Your task to perform on an android device: turn on wifi Image 0: 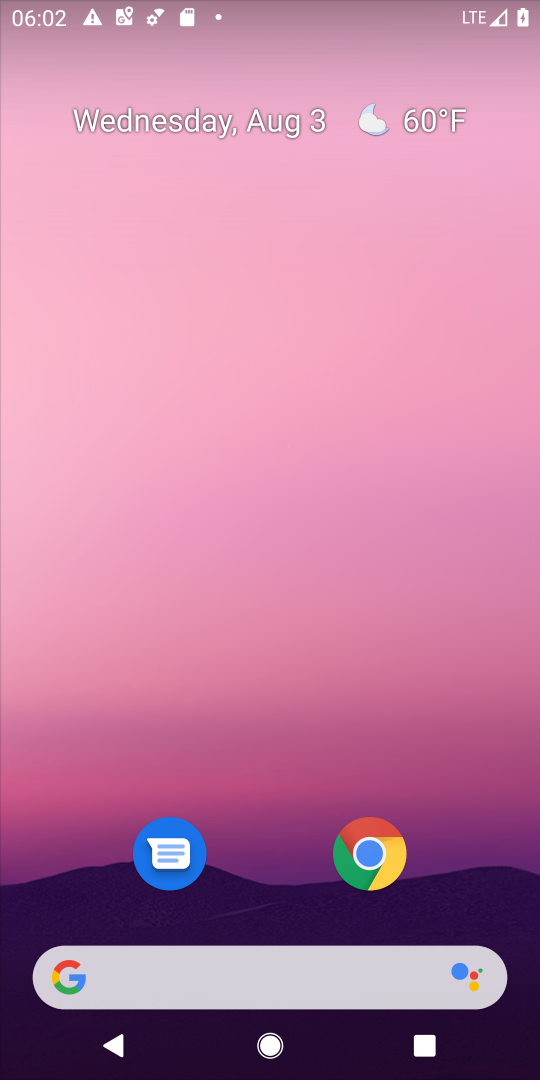
Step 0: press home button
Your task to perform on an android device: turn on wifi Image 1: 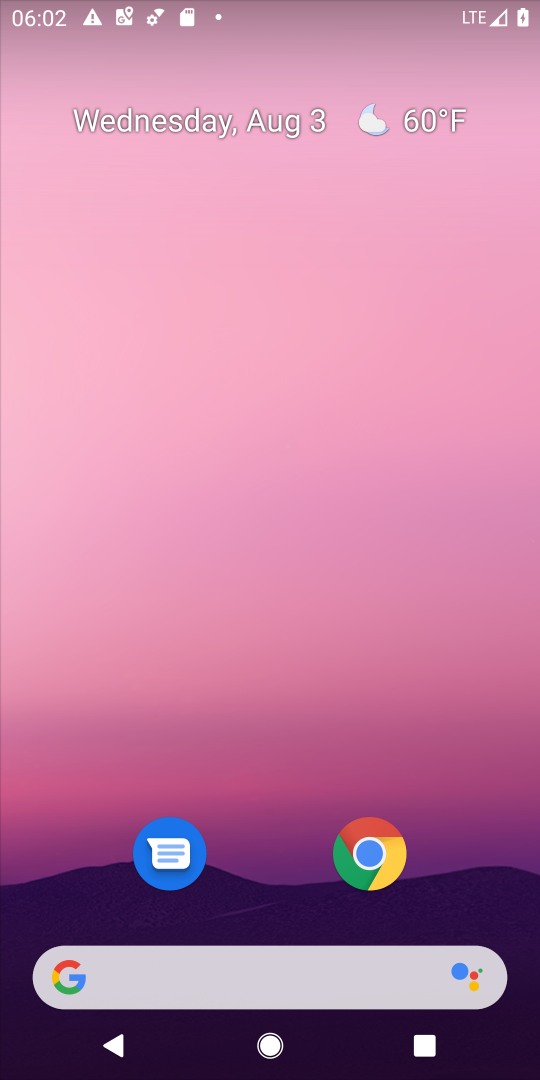
Step 1: drag from (277, 901) to (242, 93)
Your task to perform on an android device: turn on wifi Image 2: 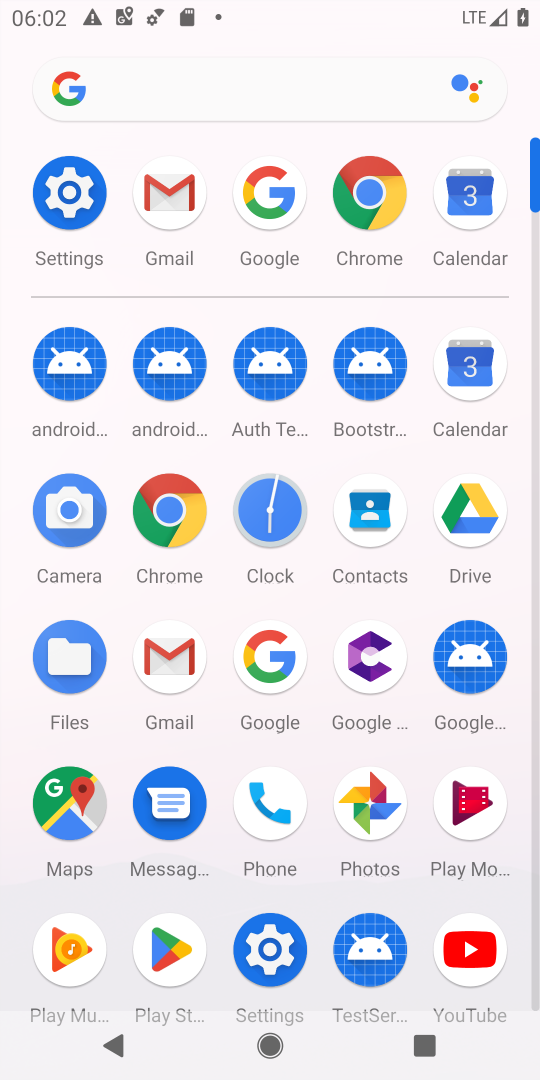
Step 2: click (77, 182)
Your task to perform on an android device: turn on wifi Image 3: 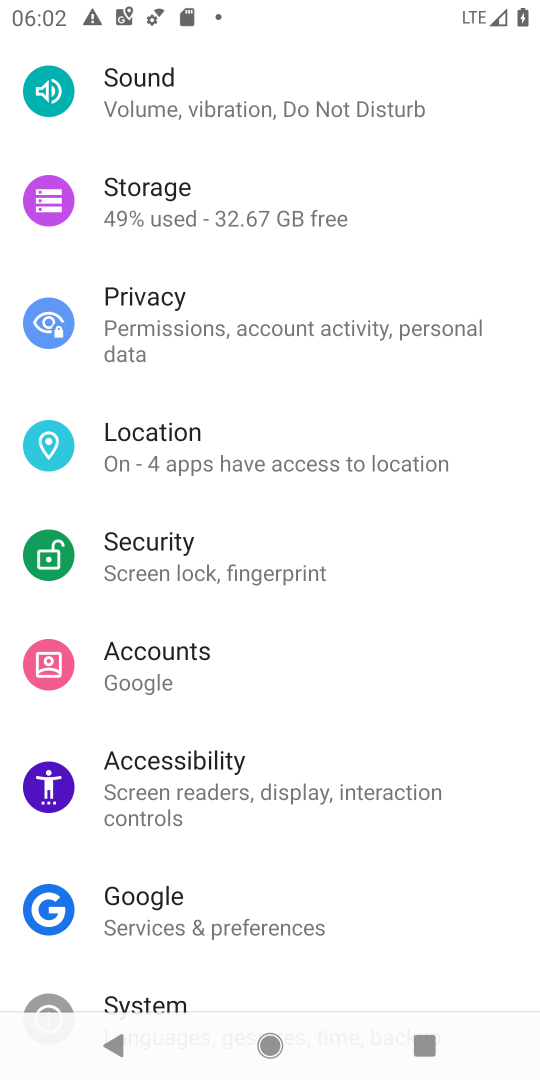
Step 3: drag from (314, 218) to (303, 899)
Your task to perform on an android device: turn on wifi Image 4: 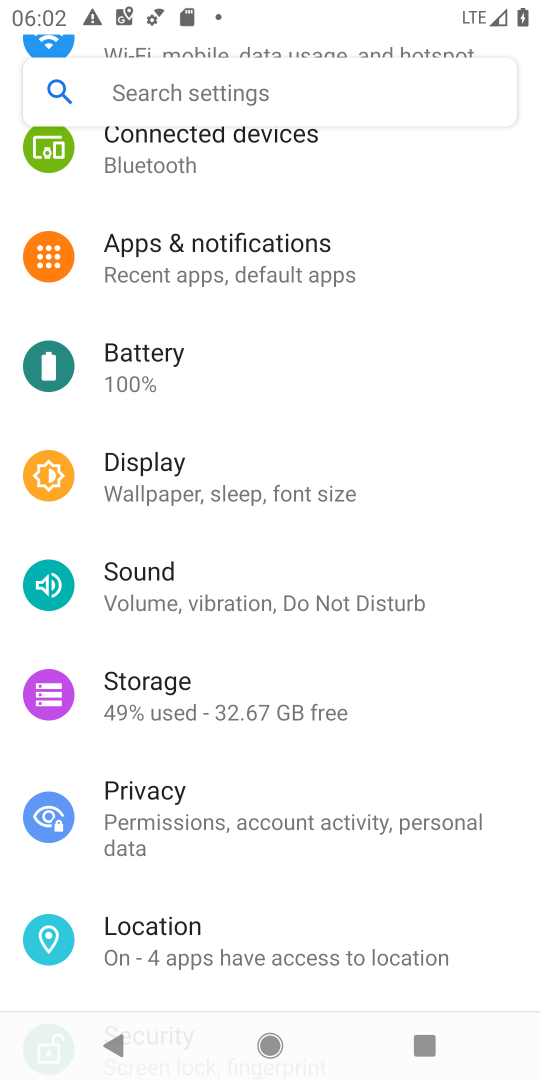
Step 4: drag from (241, 178) to (232, 946)
Your task to perform on an android device: turn on wifi Image 5: 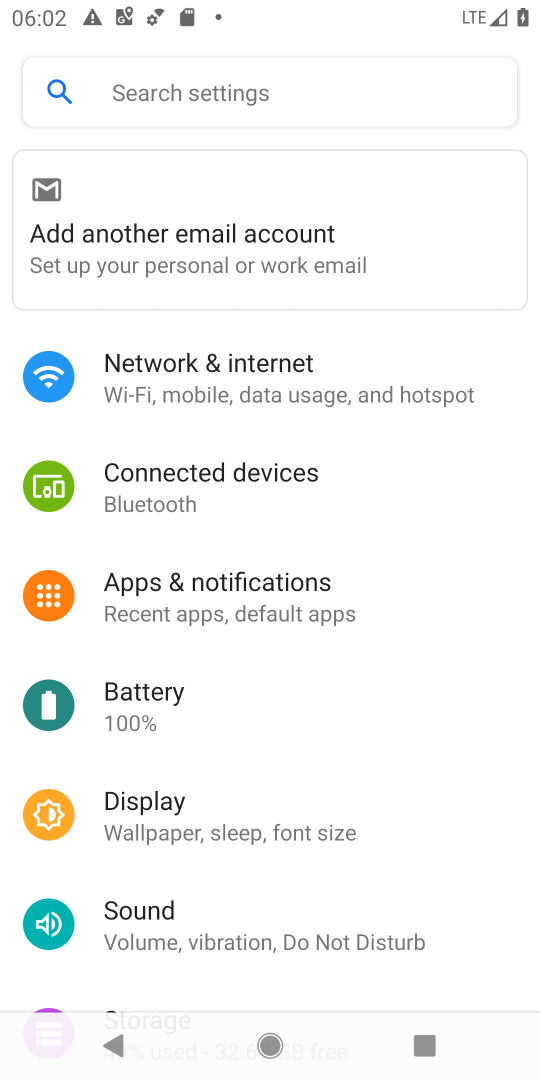
Step 5: click (196, 375)
Your task to perform on an android device: turn on wifi Image 6: 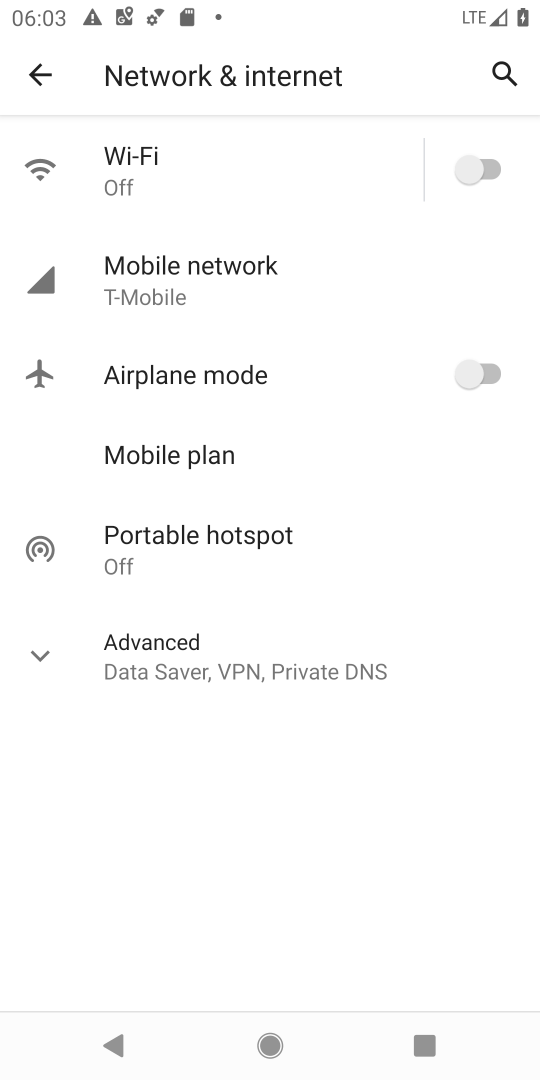
Step 6: task complete